Your task to perform on an android device: turn off smart reply in the gmail app Image 0: 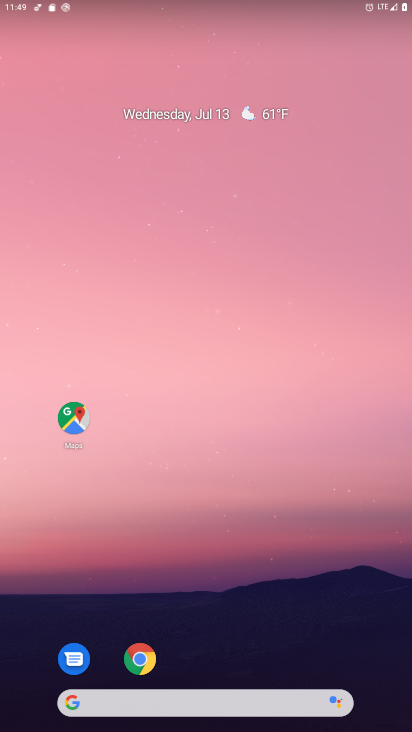
Step 0: press home button
Your task to perform on an android device: turn off smart reply in the gmail app Image 1: 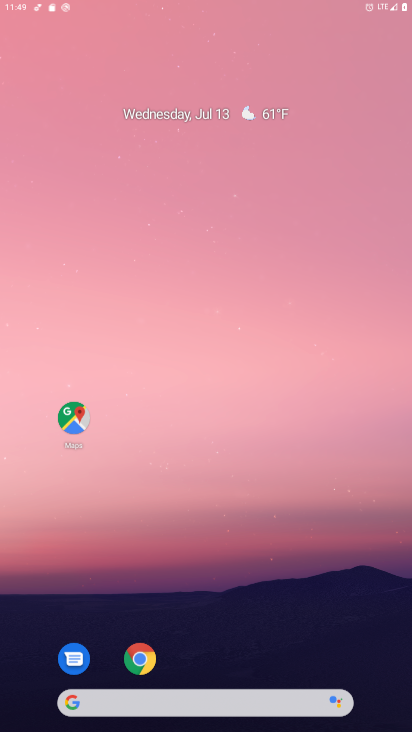
Step 1: drag from (229, 667) to (230, 0)
Your task to perform on an android device: turn off smart reply in the gmail app Image 2: 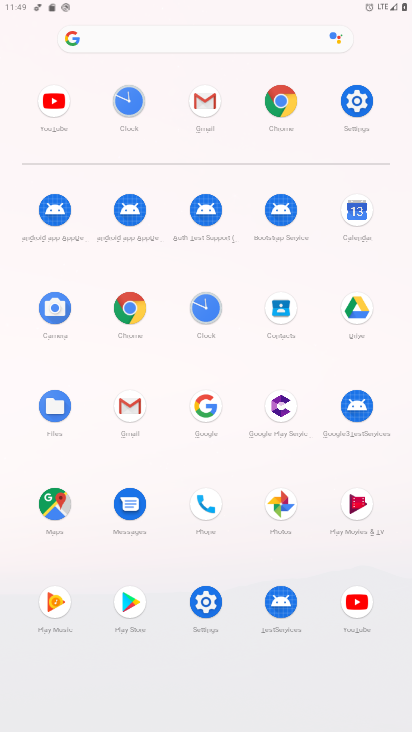
Step 2: click (201, 95)
Your task to perform on an android device: turn off smart reply in the gmail app Image 3: 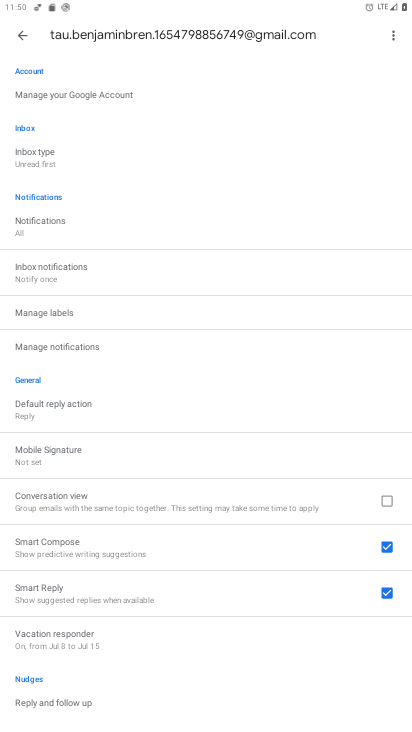
Step 3: click (383, 589)
Your task to perform on an android device: turn off smart reply in the gmail app Image 4: 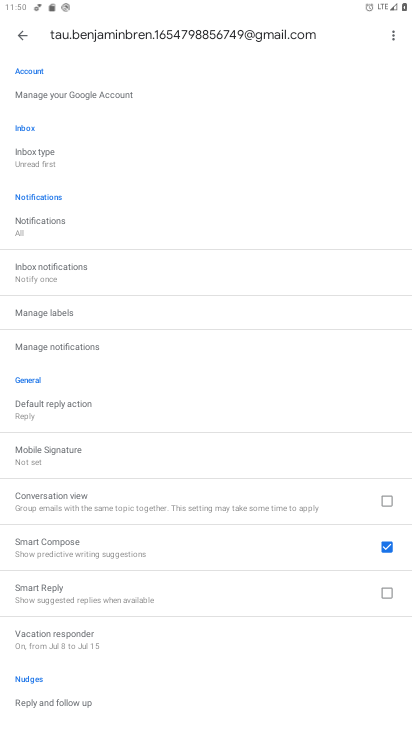
Step 4: task complete